Your task to perform on an android device: open app "DoorDash - Food Delivery" Image 0: 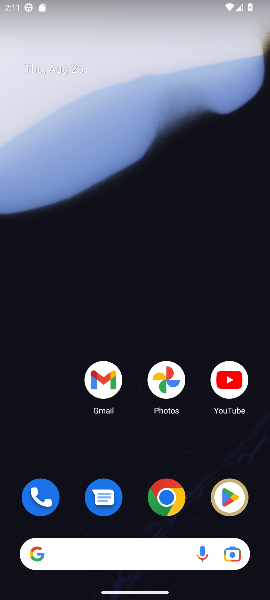
Step 0: drag from (123, 459) to (126, 59)
Your task to perform on an android device: open app "DoorDash - Food Delivery" Image 1: 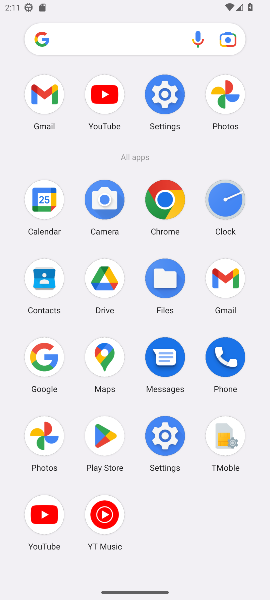
Step 1: drag from (92, 95) to (183, 145)
Your task to perform on an android device: open app "DoorDash - Food Delivery" Image 2: 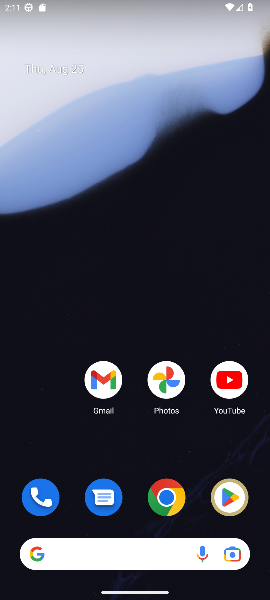
Step 2: click (220, 499)
Your task to perform on an android device: open app "DoorDash - Food Delivery" Image 3: 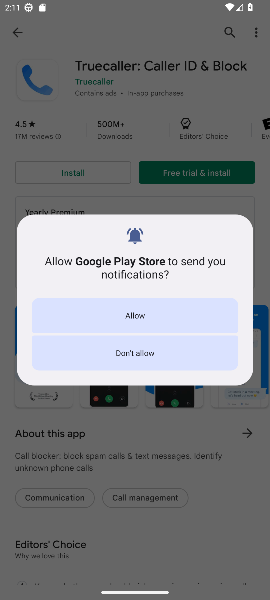
Step 3: click (227, 164)
Your task to perform on an android device: open app "DoorDash - Food Delivery" Image 4: 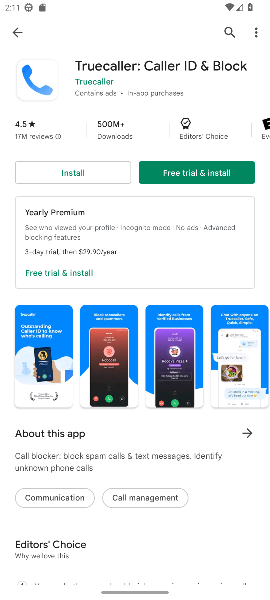
Step 4: click (11, 22)
Your task to perform on an android device: open app "DoorDash - Food Delivery" Image 5: 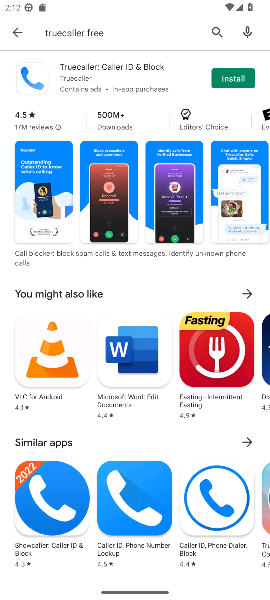
Step 5: click (18, 33)
Your task to perform on an android device: open app "DoorDash - Food Delivery" Image 6: 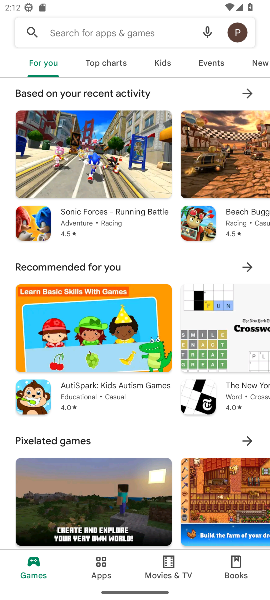
Step 6: click (167, 23)
Your task to perform on an android device: open app "DoorDash - Food Delivery" Image 7: 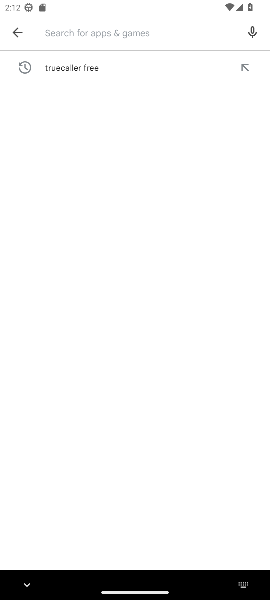
Step 7: type "DoorDash - Food Delivery "
Your task to perform on an android device: open app "DoorDash - Food Delivery" Image 8: 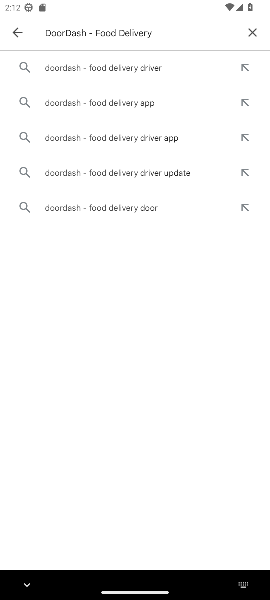
Step 8: click (107, 68)
Your task to perform on an android device: open app "DoorDash - Food Delivery" Image 9: 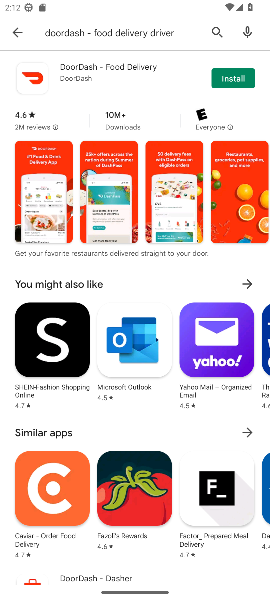
Step 9: click (229, 81)
Your task to perform on an android device: open app "DoorDash - Food Delivery" Image 10: 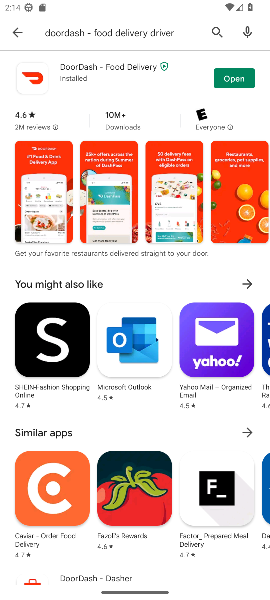
Step 10: task complete